Your task to perform on an android device: turn on showing notifications on the lock screen Image 0: 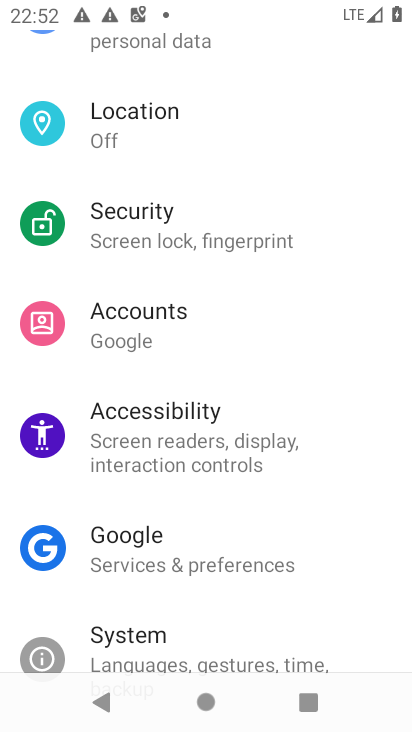
Step 0: drag from (290, 139) to (298, 588)
Your task to perform on an android device: turn on showing notifications on the lock screen Image 1: 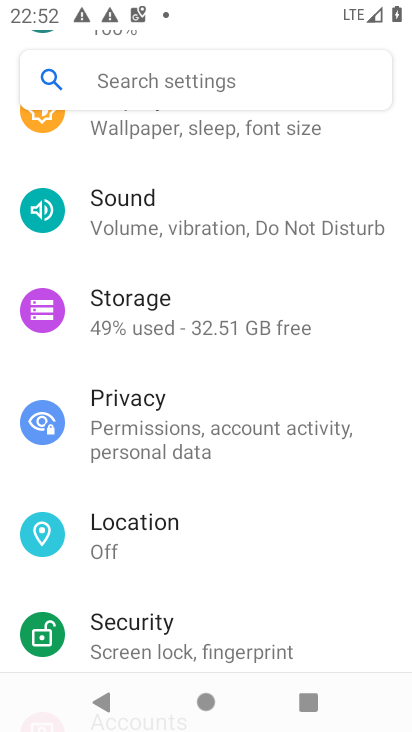
Step 1: drag from (290, 212) to (301, 611)
Your task to perform on an android device: turn on showing notifications on the lock screen Image 2: 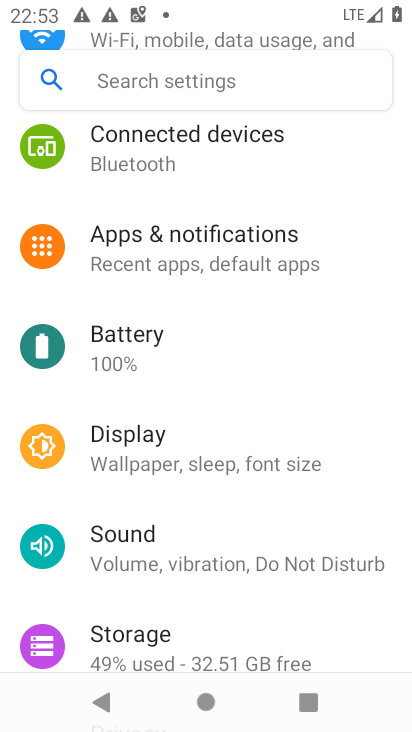
Step 2: click (211, 225)
Your task to perform on an android device: turn on showing notifications on the lock screen Image 3: 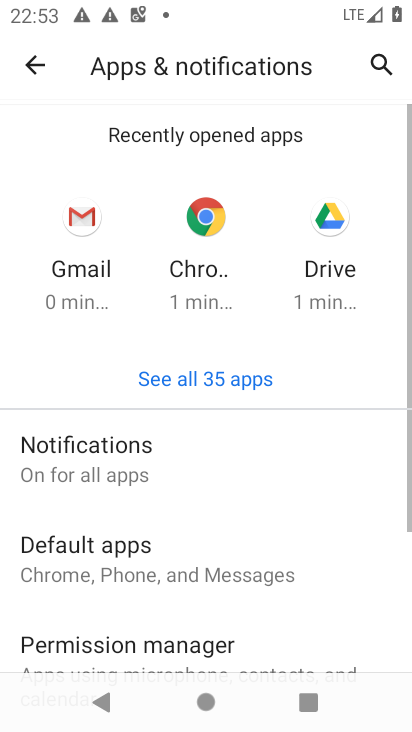
Step 3: click (90, 465)
Your task to perform on an android device: turn on showing notifications on the lock screen Image 4: 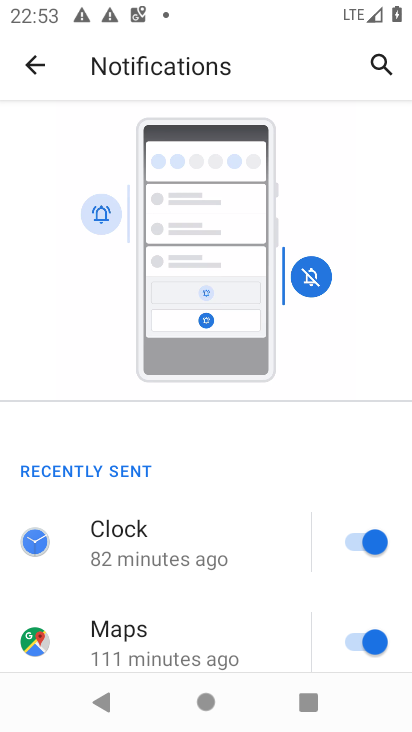
Step 4: drag from (279, 642) to (280, 197)
Your task to perform on an android device: turn on showing notifications on the lock screen Image 5: 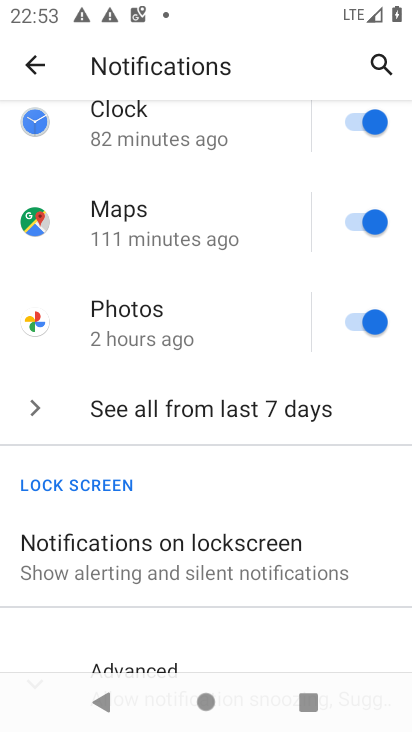
Step 5: click (168, 554)
Your task to perform on an android device: turn on showing notifications on the lock screen Image 6: 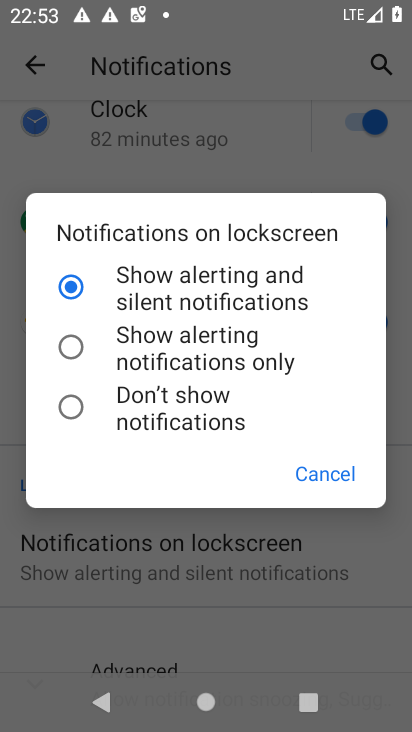
Step 6: task complete